Your task to perform on an android device: Check my gmail inbox Image 0: 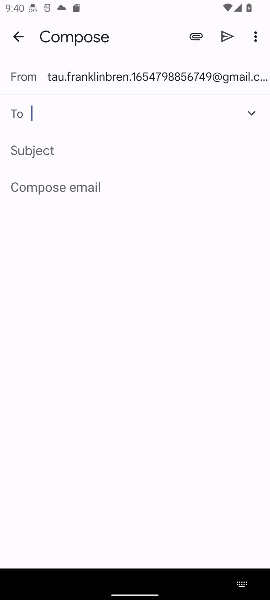
Step 0: press home button
Your task to perform on an android device: Check my gmail inbox Image 1: 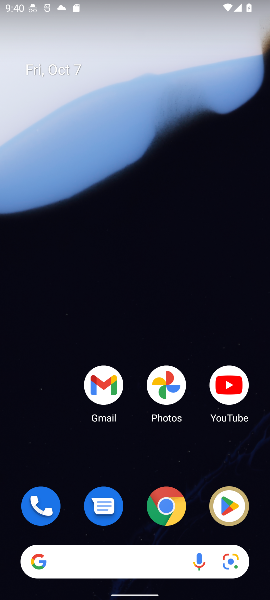
Step 1: click (101, 379)
Your task to perform on an android device: Check my gmail inbox Image 2: 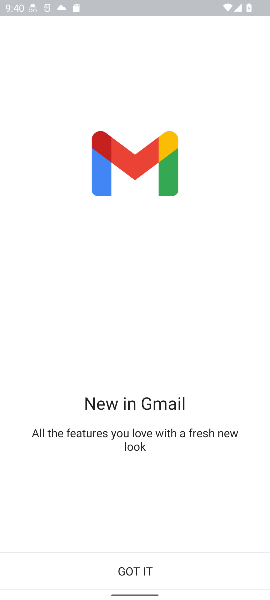
Step 2: click (127, 565)
Your task to perform on an android device: Check my gmail inbox Image 3: 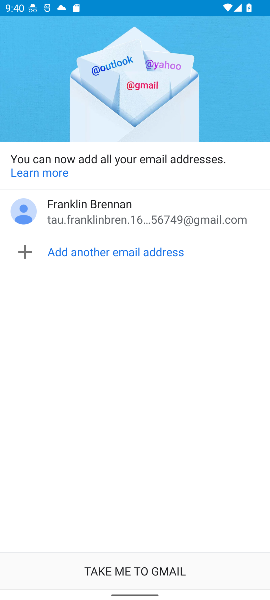
Step 3: click (127, 570)
Your task to perform on an android device: Check my gmail inbox Image 4: 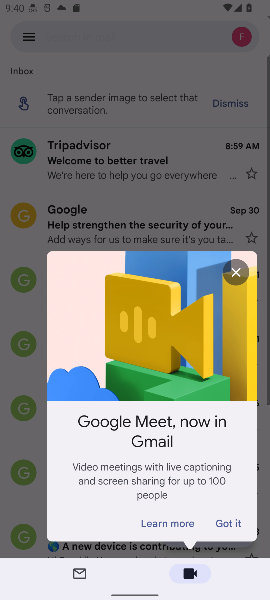
Step 4: click (233, 274)
Your task to perform on an android device: Check my gmail inbox Image 5: 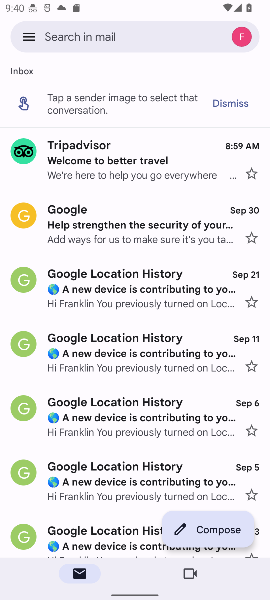
Step 5: task complete